Your task to perform on an android device: When is my next appointment? Image 0: 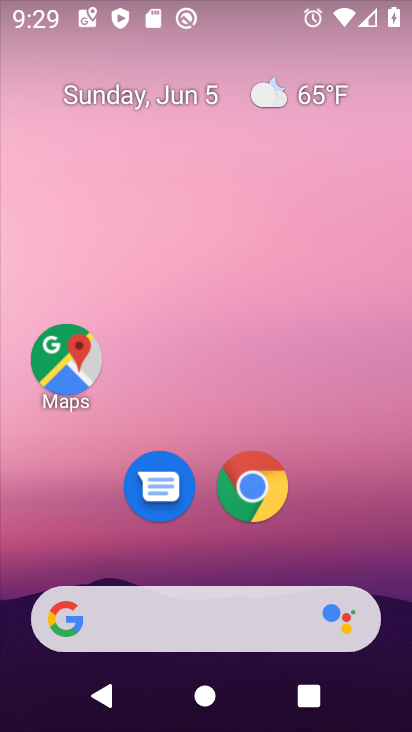
Step 0: drag from (355, 487) to (353, 161)
Your task to perform on an android device: When is my next appointment? Image 1: 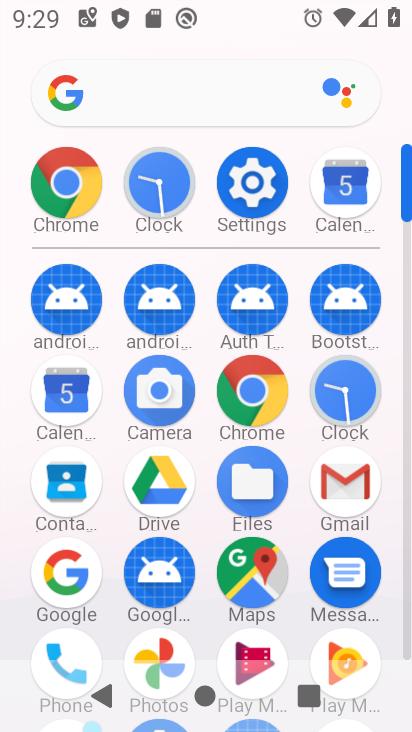
Step 1: click (91, 407)
Your task to perform on an android device: When is my next appointment? Image 2: 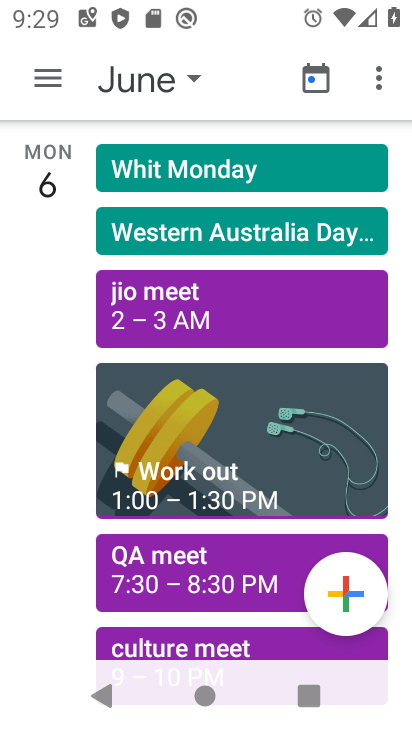
Step 2: task complete